Your task to perform on an android device: refresh tabs in the chrome app Image 0: 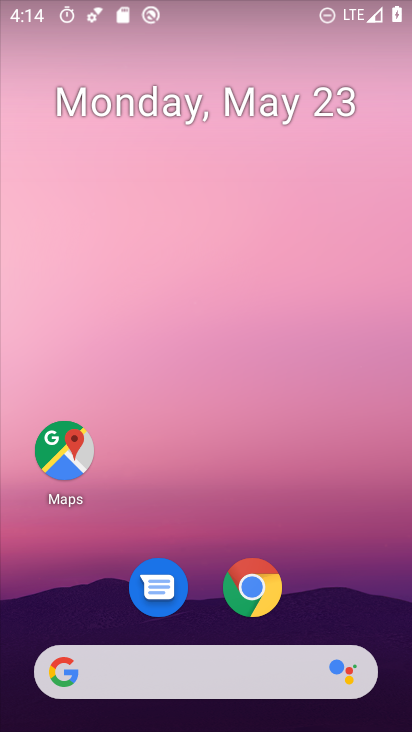
Step 0: click (246, 576)
Your task to perform on an android device: refresh tabs in the chrome app Image 1: 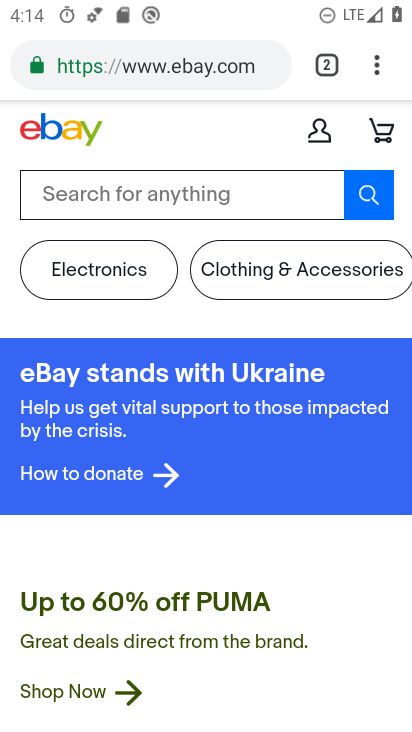
Step 1: click (373, 65)
Your task to perform on an android device: refresh tabs in the chrome app Image 2: 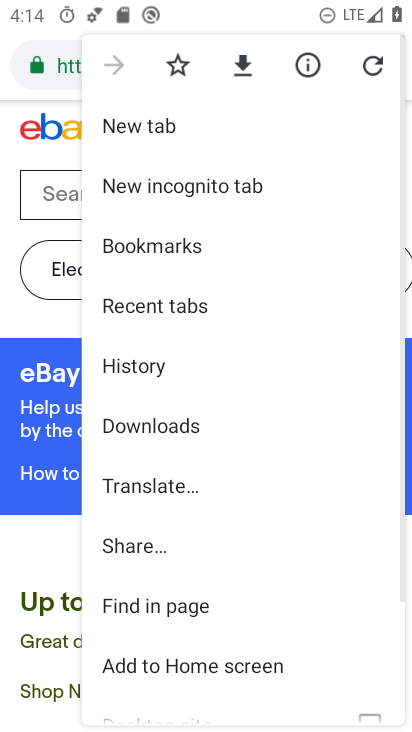
Step 2: click (371, 63)
Your task to perform on an android device: refresh tabs in the chrome app Image 3: 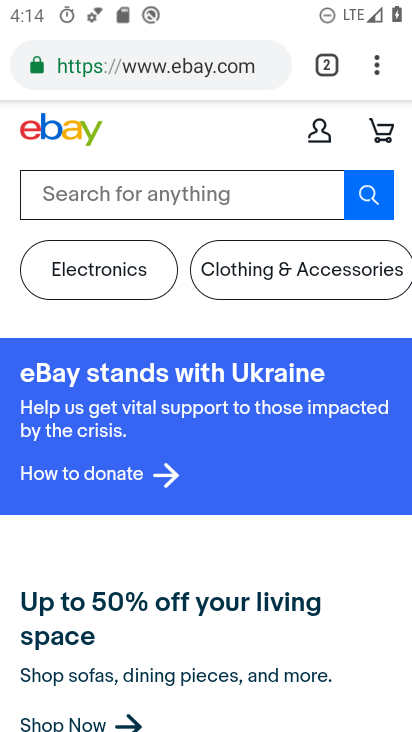
Step 3: task complete